Your task to perform on an android device: Go to Google maps Image 0: 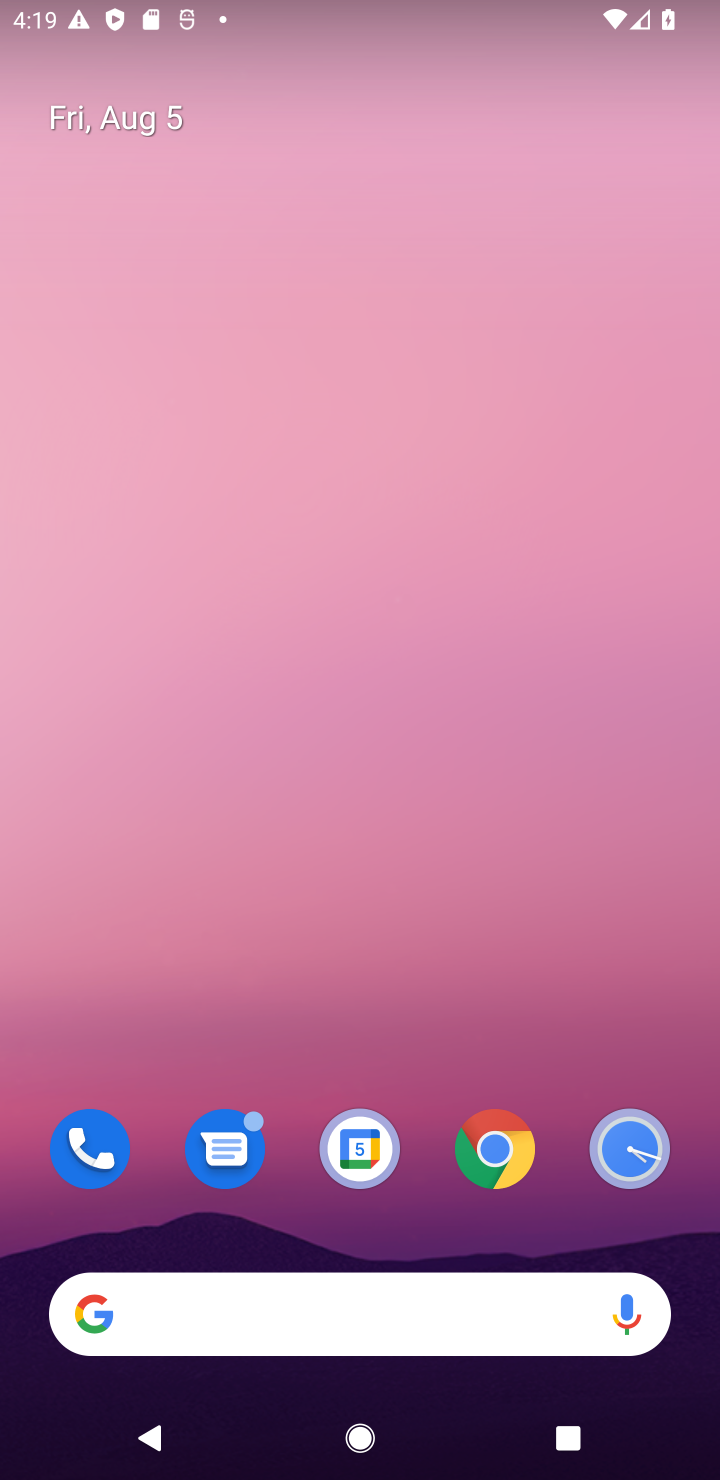
Step 0: drag from (477, 572) to (556, 15)
Your task to perform on an android device: Go to Google maps Image 1: 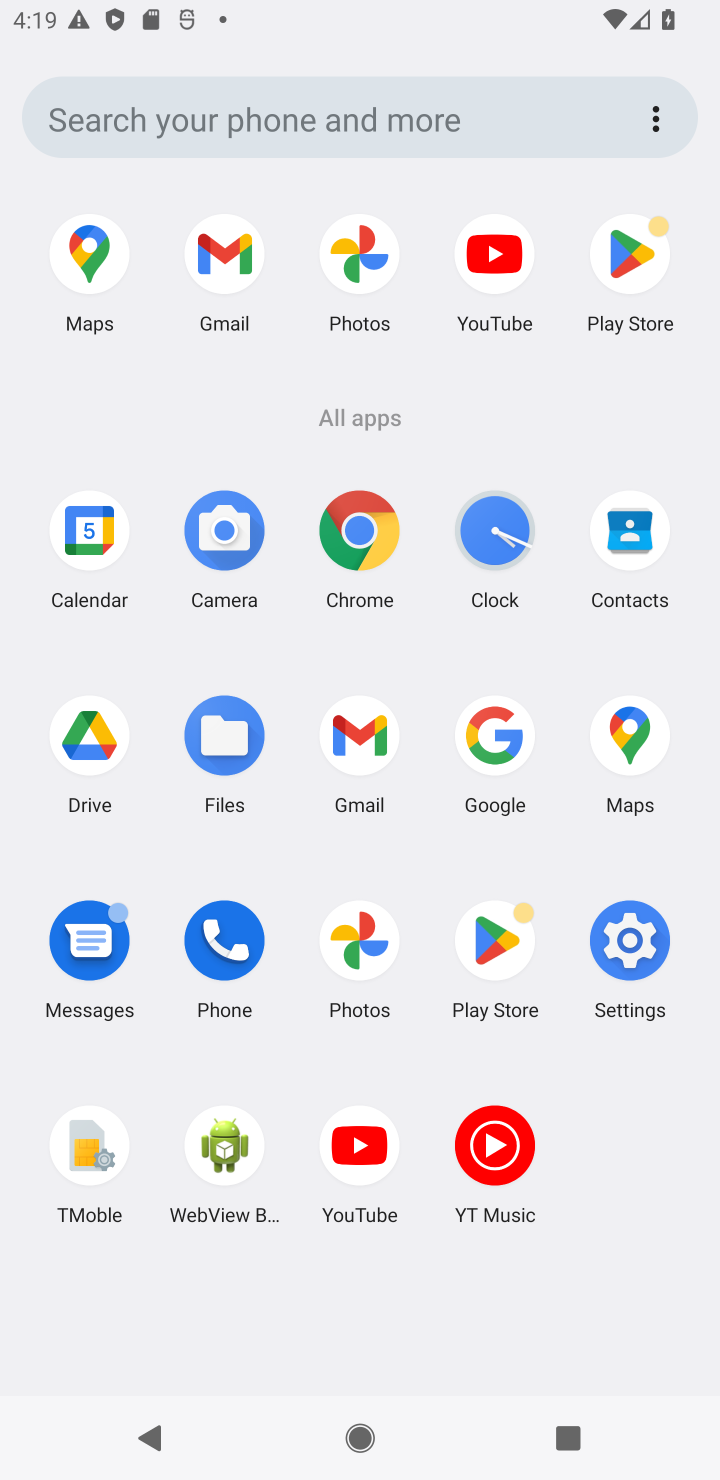
Step 1: click (603, 760)
Your task to perform on an android device: Go to Google maps Image 2: 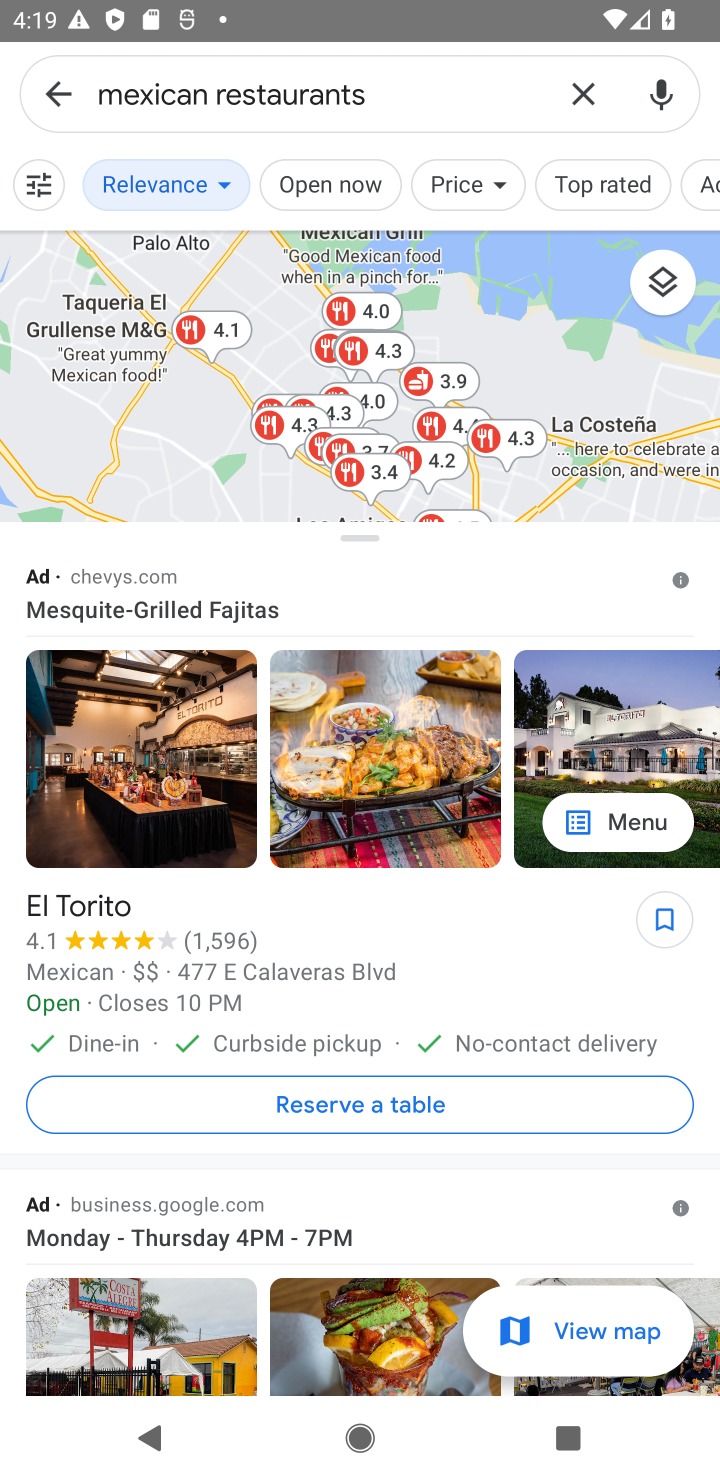
Step 2: task complete